Your task to perform on an android device: Go to CNN.com Image 0: 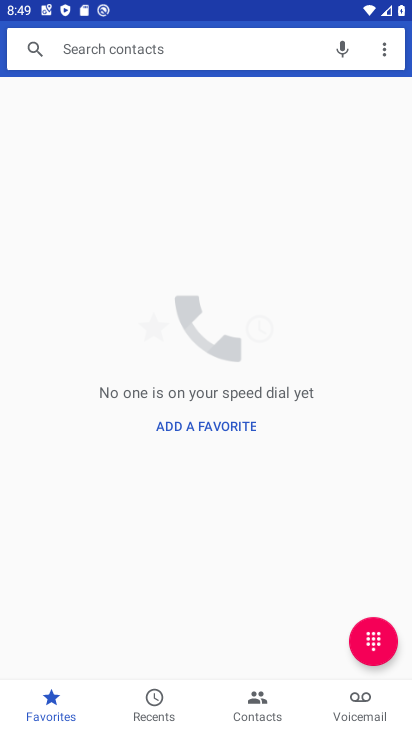
Step 0: press home button
Your task to perform on an android device: Go to CNN.com Image 1: 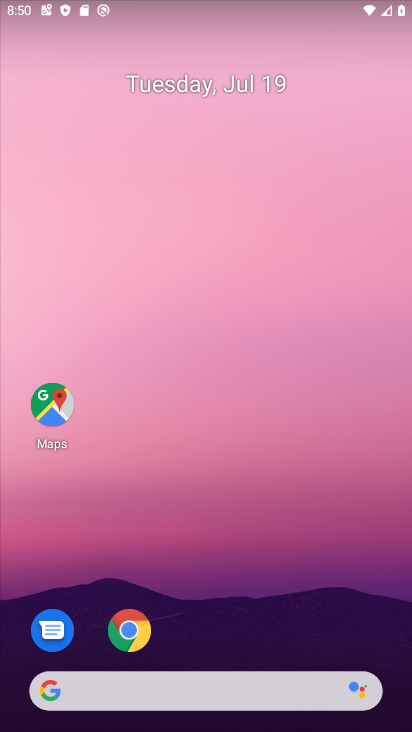
Step 1: drag from (188, 637) to (203, 128)
Your task to perform on an android device: Go to CNN.com Image 2: 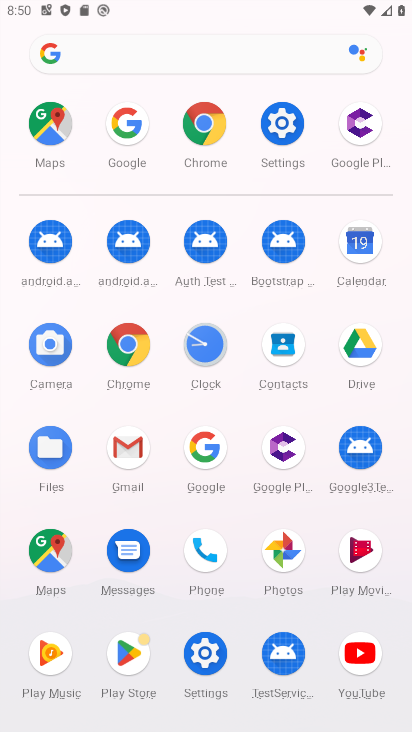
Step 2: click (125, 120)
Your task to perform on an android device: Go to CNN.com Image 3: 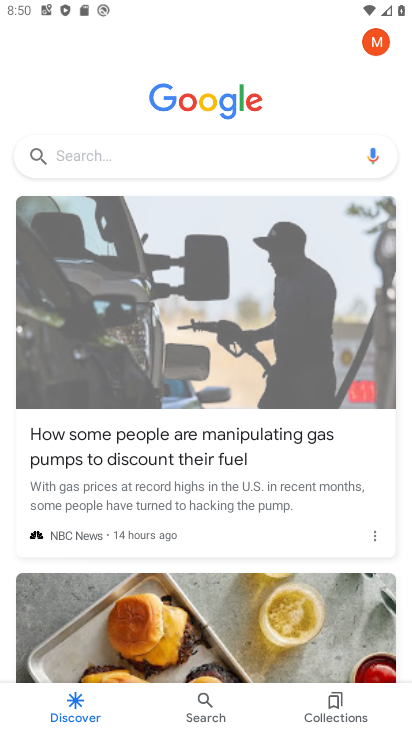
Step 3: click (132, 152)
Your task to perform on an android device: Go to CNN.com Image 4: 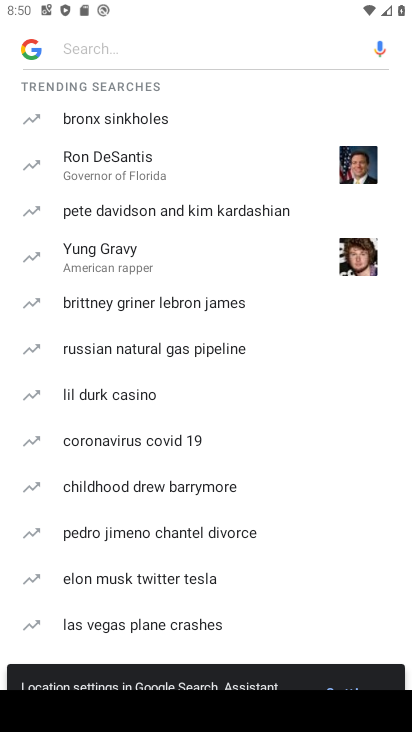
Step 4: drag from (209, 528) to (216, 34)
Your task to perform on an android device: Go to CNN.com Image 5: 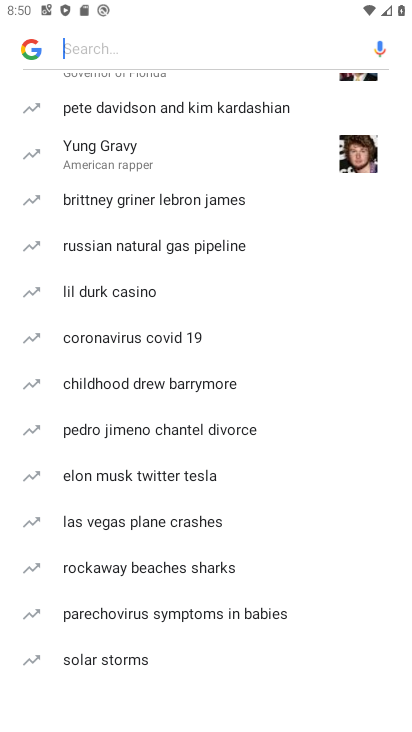
Step 5: click (109, 43)
Your task to perform on an android device: Go to CNN.com Image 6: 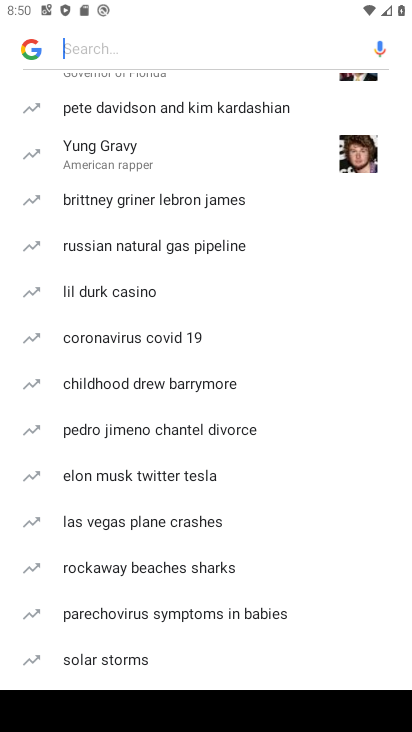
Step 6: type "cnn.com"
Your task to perform on an android device: Go to CNN.com Image 7: 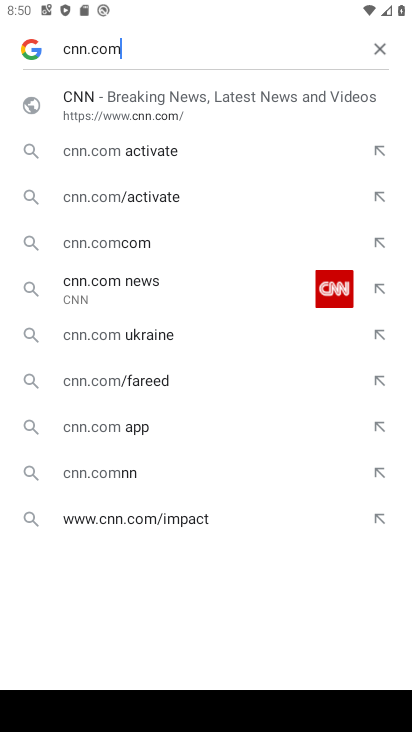
Step 7: click (131, 106)
Your task to perform on an android device: Go to CNN.com Image 8: 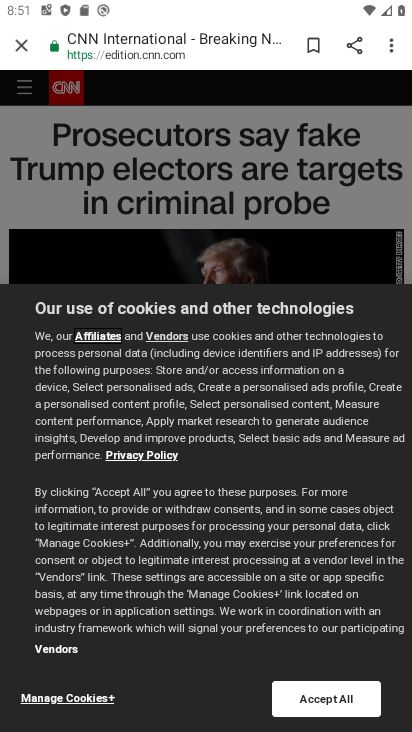
Step 8: task complete